Your task to perform on an android device: Go to Reddit.com Image 0: 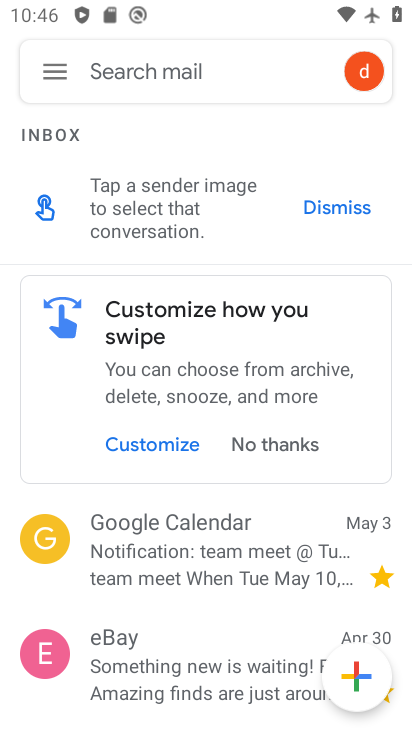
Step 0: press back button
Your task to perform on an android device: Go to Reddit.com Image 1: 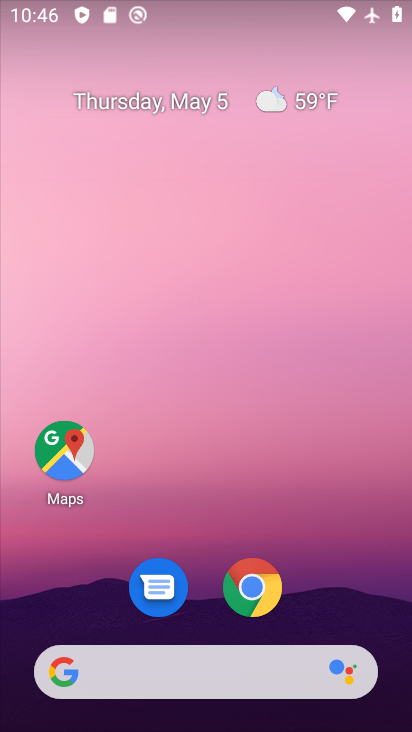
Step 1: drag from (309, 585) to (281, 24)
Your task to perform on an android device: Go to Reddit.com Image 2: 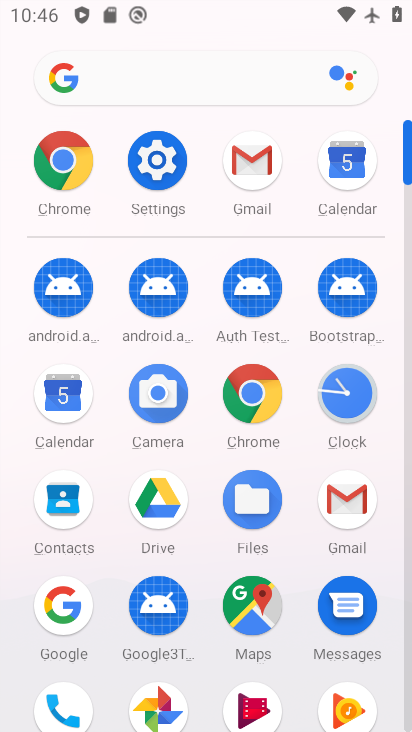
Step 2: click (249, 384)
Your task to perform on an android device: Go to Reddit.com Image 3: 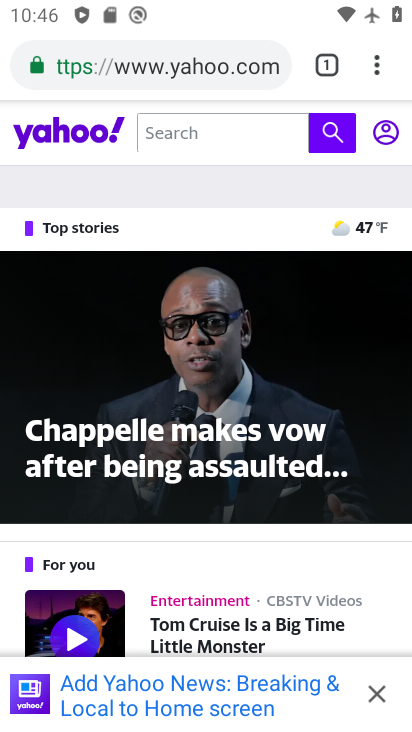
Step 3: click (203, 58)
Your task to perform on an android device: Go to Reddit.com Image 4: 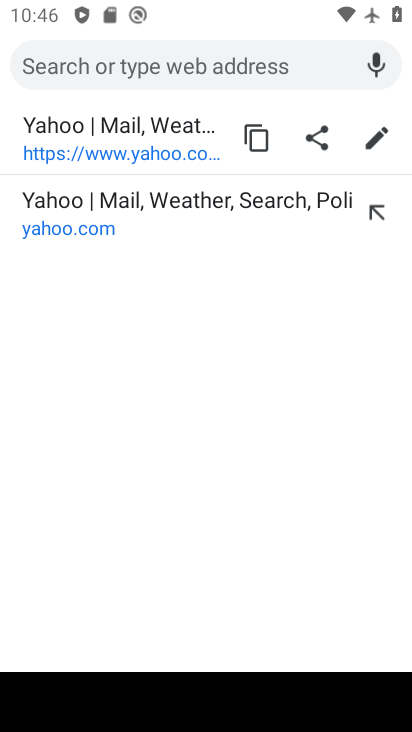
Step 4: type "Reddit.com"
Your task to perform on an android device: Go to Reddit.com Image 5: 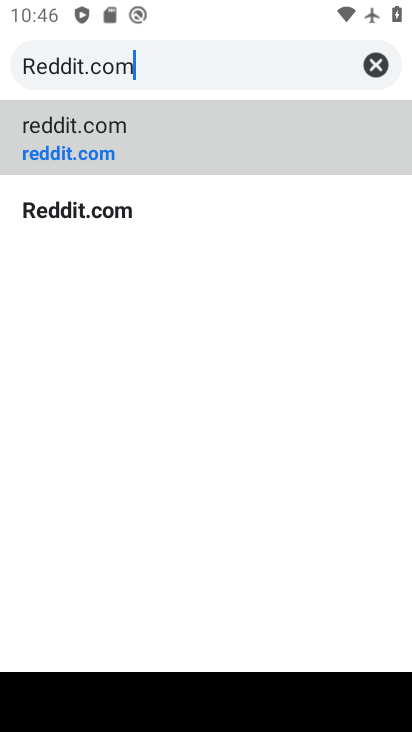
Step 5: type ""
Your task to perform on an android device: Go to Reddit.com Image 6: 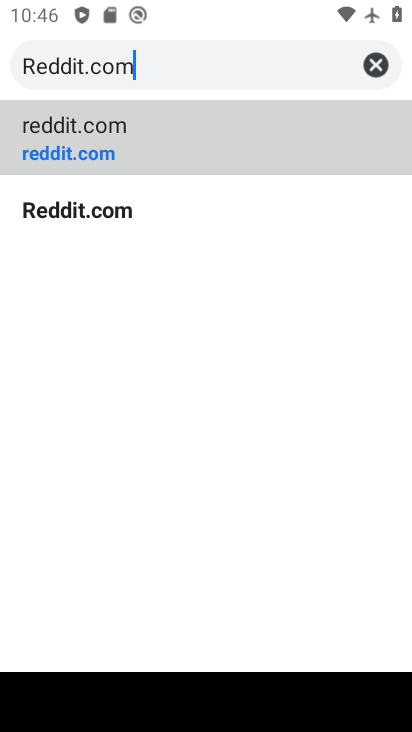
Step 6: click (112, 144)
Your task to perform on an android device: Go to Reddit.com Image 7: 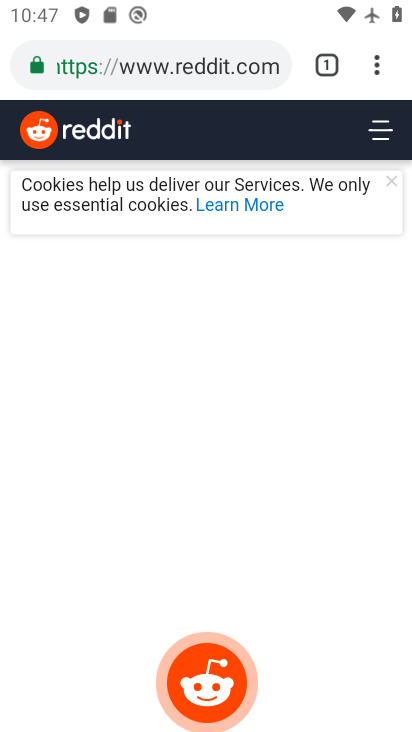
Step 7: task complete